Your task to perform on an android device: toggle show notifications on the lock screen Image 0: 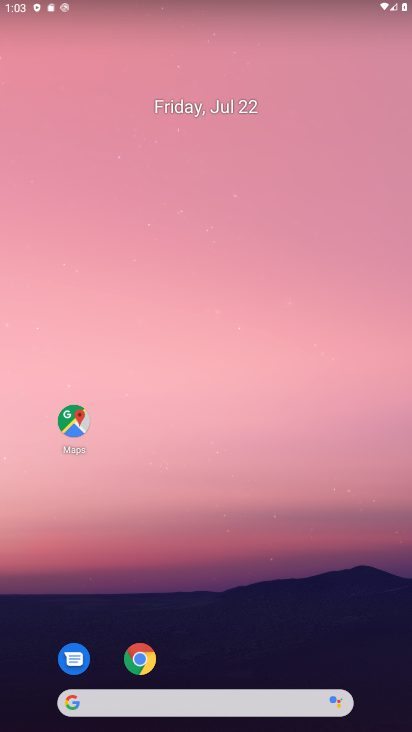
Step 0: drag from (250, 642) to (226, 87)
Your task to perform on an android device: toggle show notifications on the lock screen Image 1: 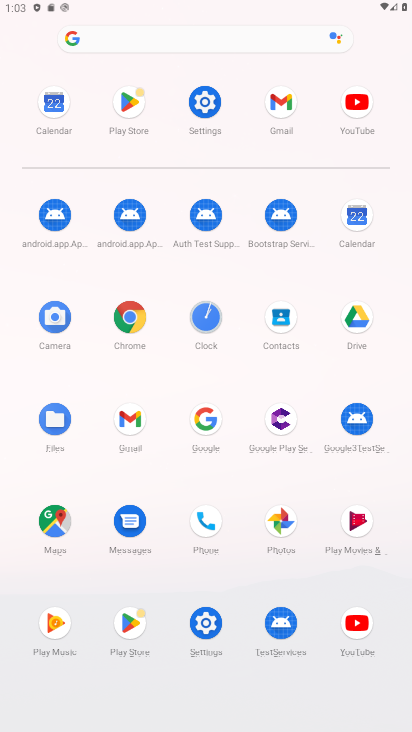
Step 1: click (213, 119)
Your task to perform on an android device: toggle show notifications on the lock screen Image 2: 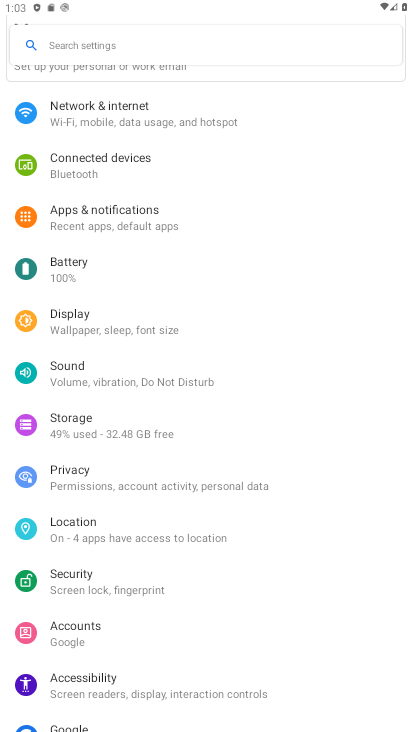
Step 2: click (199, 244)
Your task to perform on an android device: toggle show notifications on the lock screen Image 3: 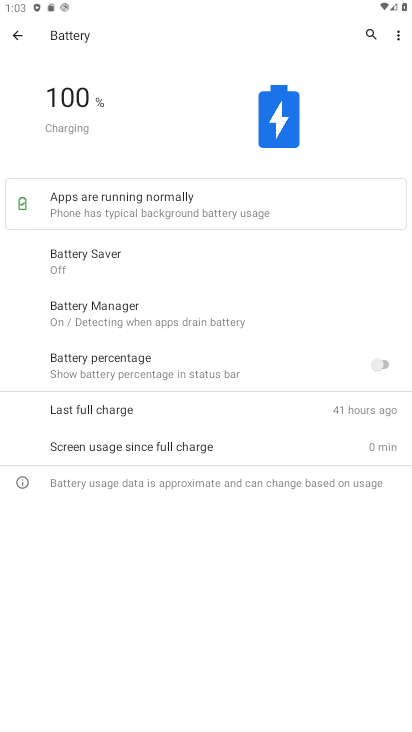
Step 3: task complete